Your task to perform on an android device: Open Chrome and go to settings Image 0: 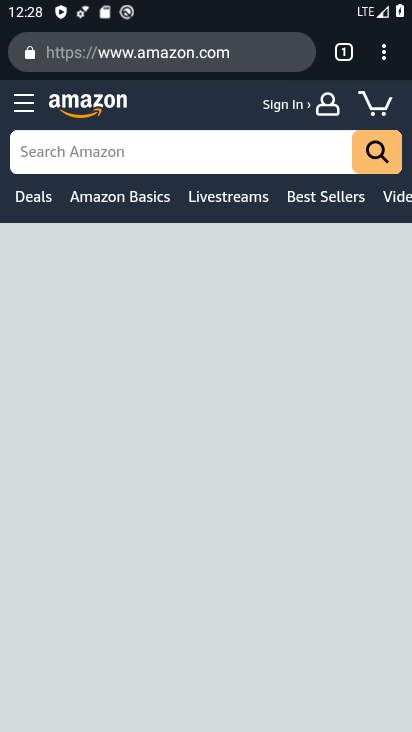
Step 0: press home button
Your task to perform on an android device: Open Chrome and go to settings Image 1: 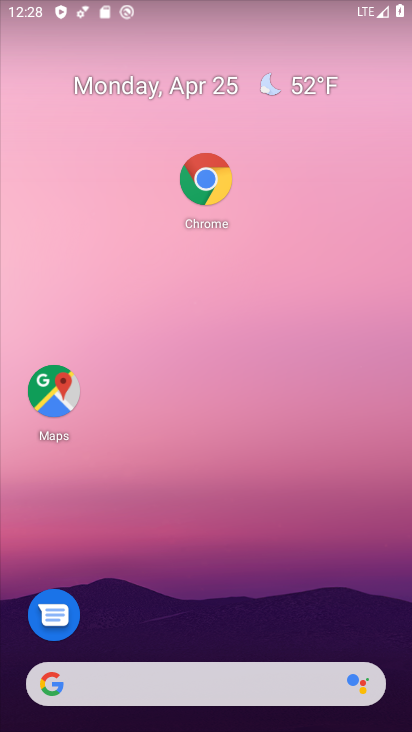
Step 1: drag from (211, 680) to (404, 16)
Your task to perform on an android device: Open Chrome and go to settings Image 2: 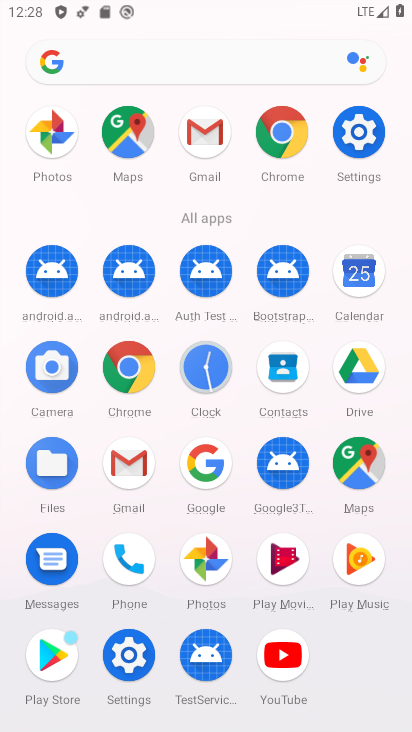
Step 2: click (281, 140)
Your task to perform on an android device: Open Chrome and go to settings Image 3: 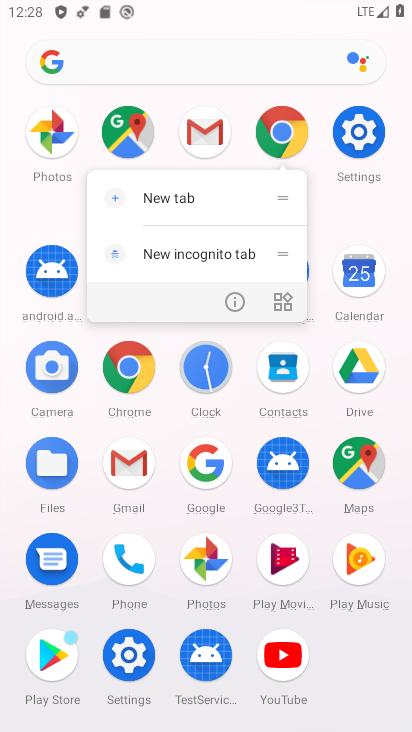
Step 3: click (289, 129)
Your task to perform on an android device: Open Chrome and go to settings Image 4: 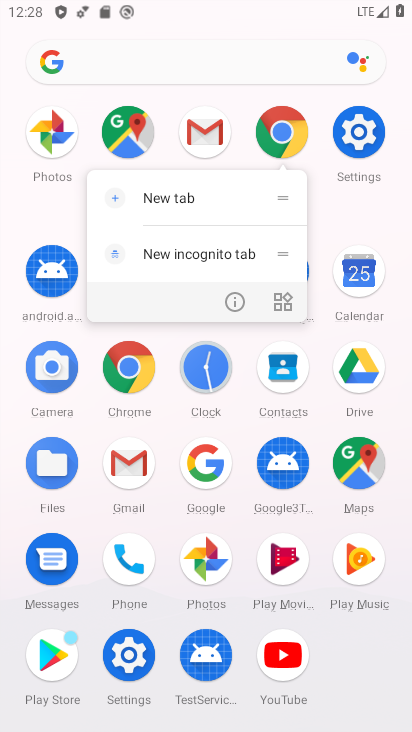
Step 4: click (289, 128)
Your task to perform on an android device: Open Chrome and go to settings Image 5: 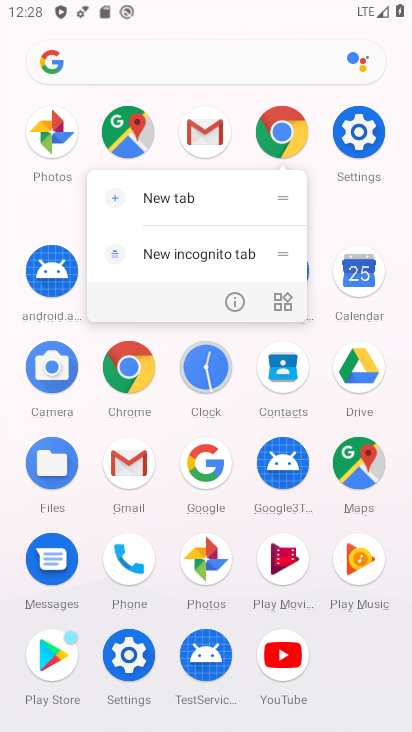
Step 5: click (286, 134)
Your task to perform on an android device: Open Chrome and go to settings Image 6: 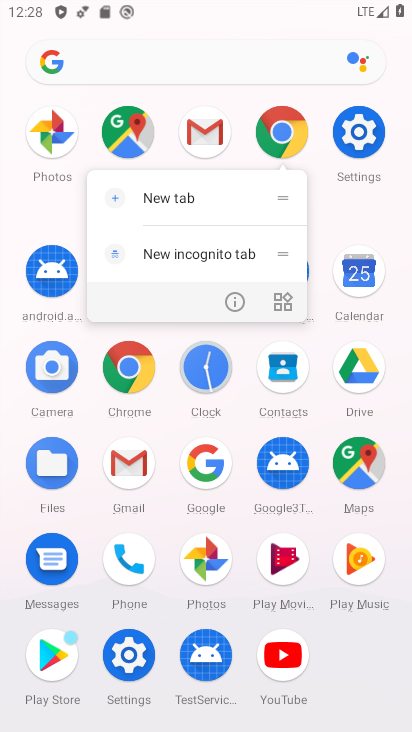
Step 6: click (286, 133)
Your task to perform on an android device: Open Chrome and go to settings Image 7: 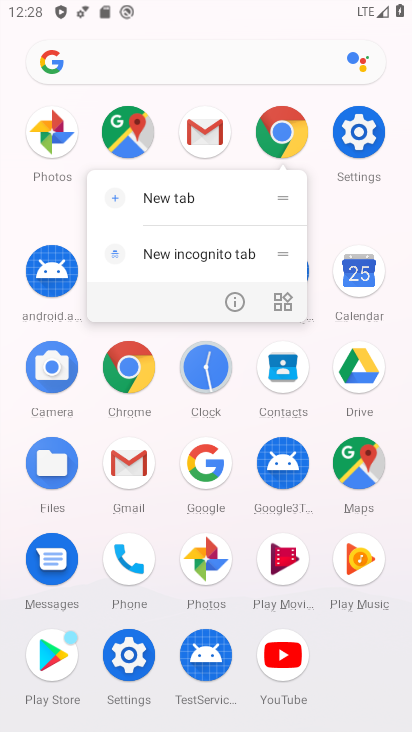
Step 7: click (287, 128)
Your task to perform on an android device: Open Chrome and go to settings Image 8: 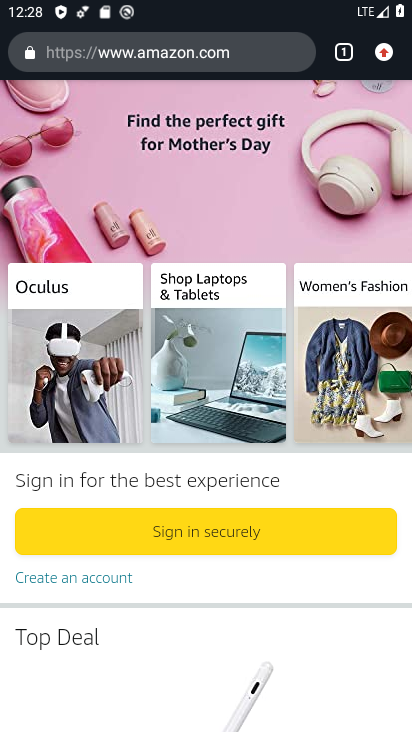
Step 8: click (380, 60)
Your task to perform on an android device: Open Chrome and go to settings Image 9: 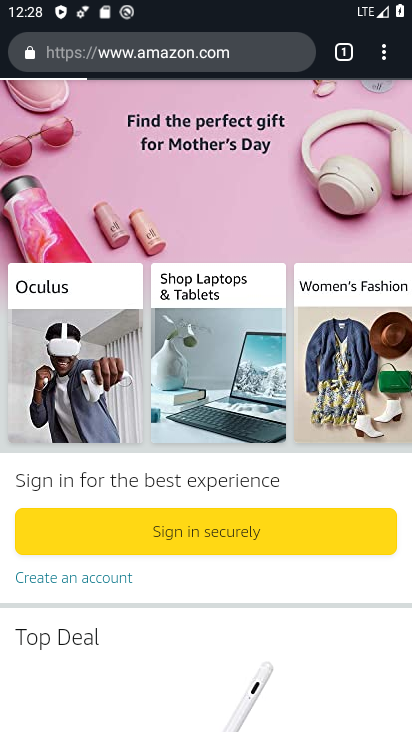
Step 9: task complete